Your task to perform on an android device: turn on location history Image 0: 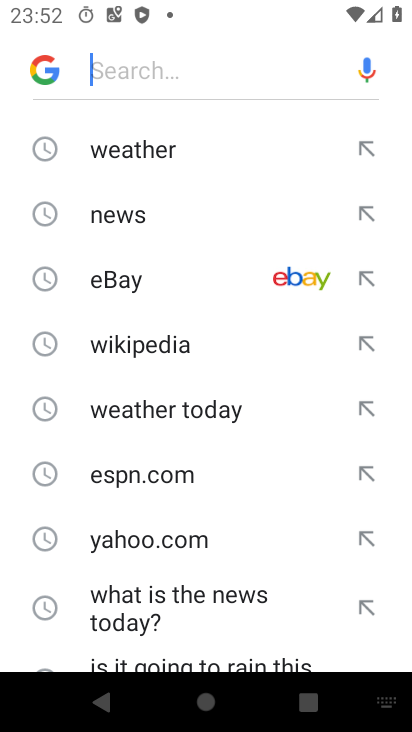
Step 0: drag from (209, 518) to (259, 260)
Your task to perform on an android device: turn on location history Image 1: 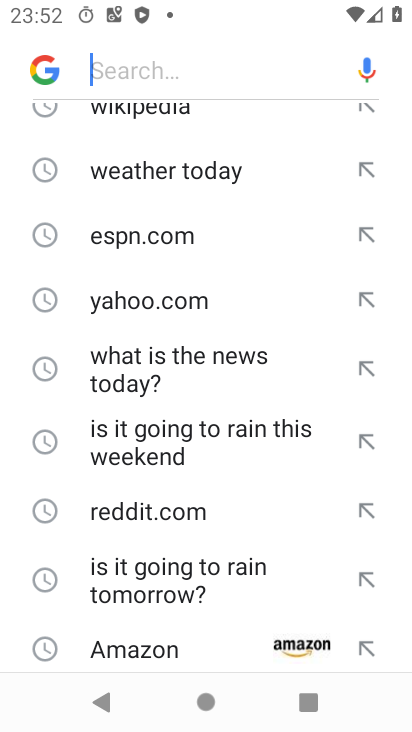
Step 1: drag from (248, 589) to (262, 383)
Your task to perform on an android device: turn on location history Image 2: 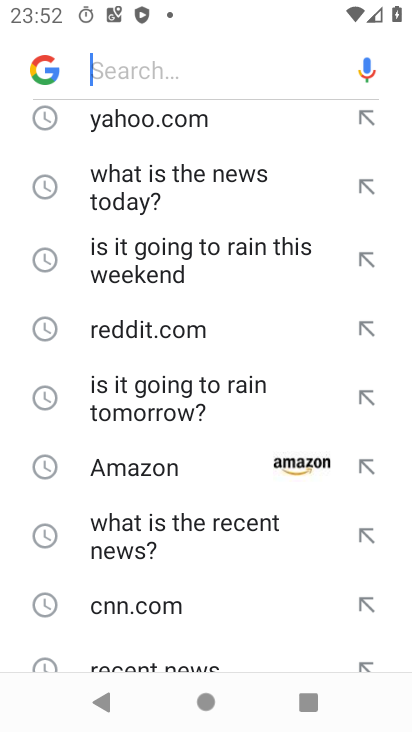
Step 2: press home button
Your task to perform on an android device: turn on location history Image 3: 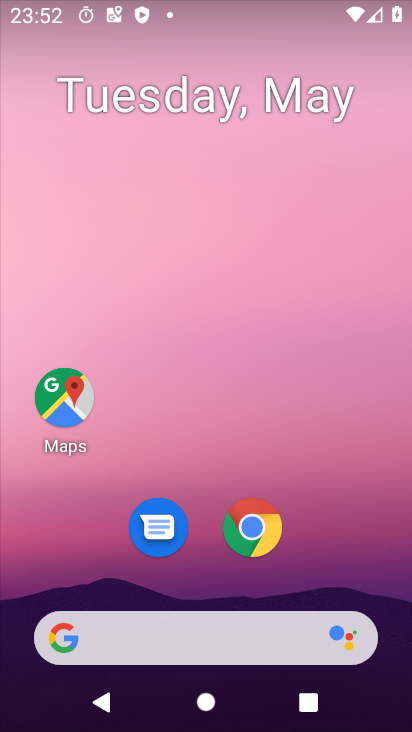
Step 3: drag from (202, 611) to (274, 234)
Your task to perform on an android device: turn on location history Image 4: 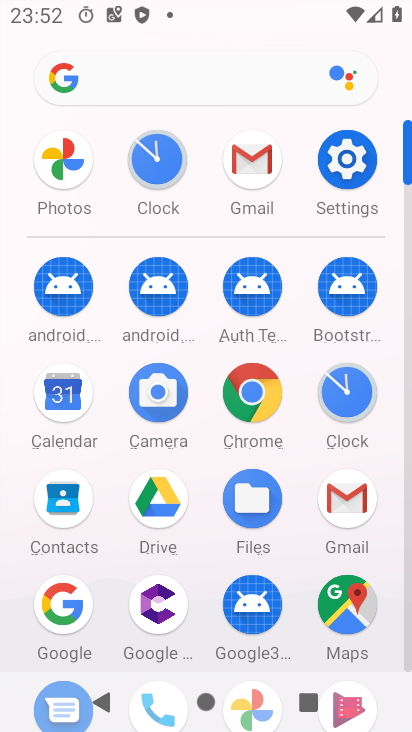
Step 4: click (331, 155)
Your task to perform on an android device: turn on location history Image 5: 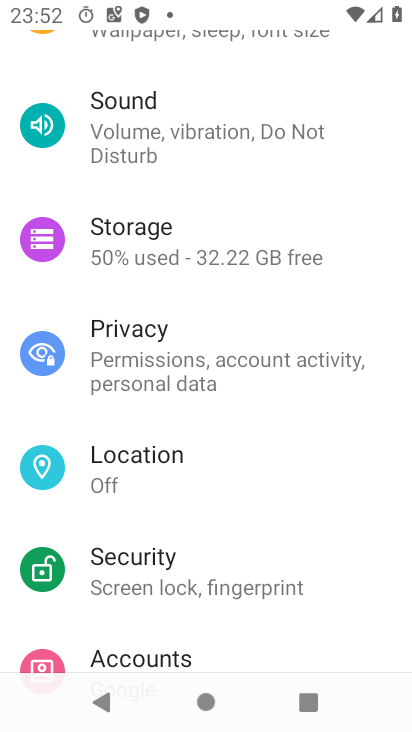
Step 5: drag from (228, 585) to (299, 192)
Your task to perform on an android device: turn on location history Image 6: 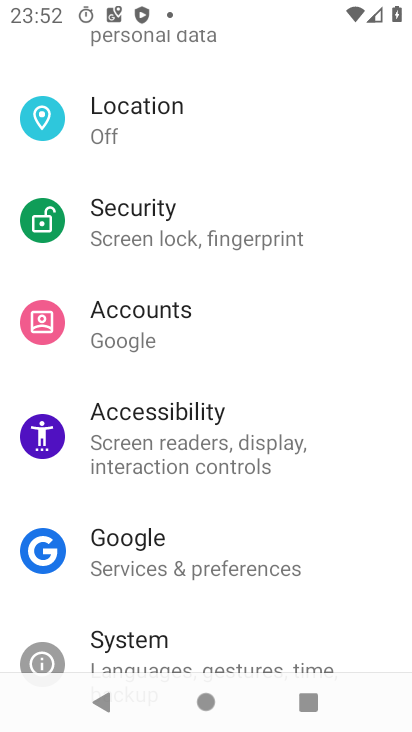
Step 6: click (181, 119)
Your task to perform on an android device: turn on location history Image 7: 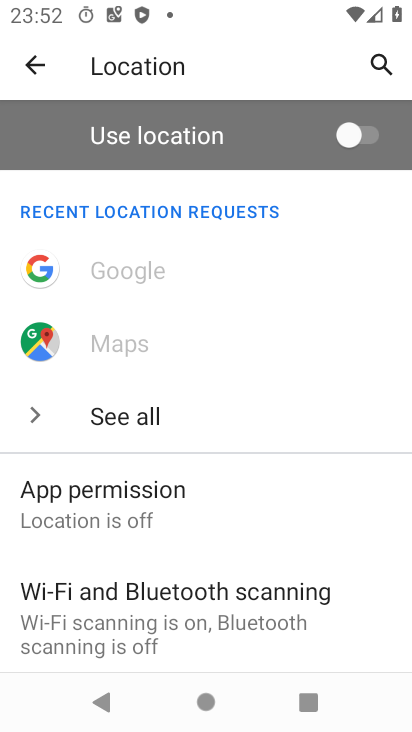
Step 7: click (287, 147)
Your task to perform on an android device: turn on location history Image 8: 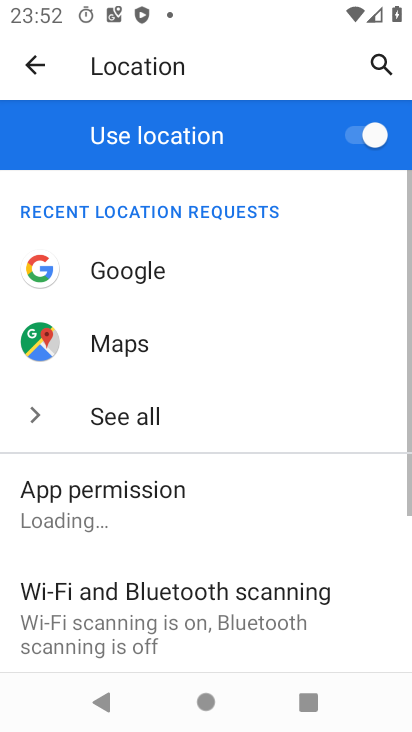
Step 8: task complete